Your task to perform on an android device: uninstall "Life360: Find Family & Friends" Image 0: 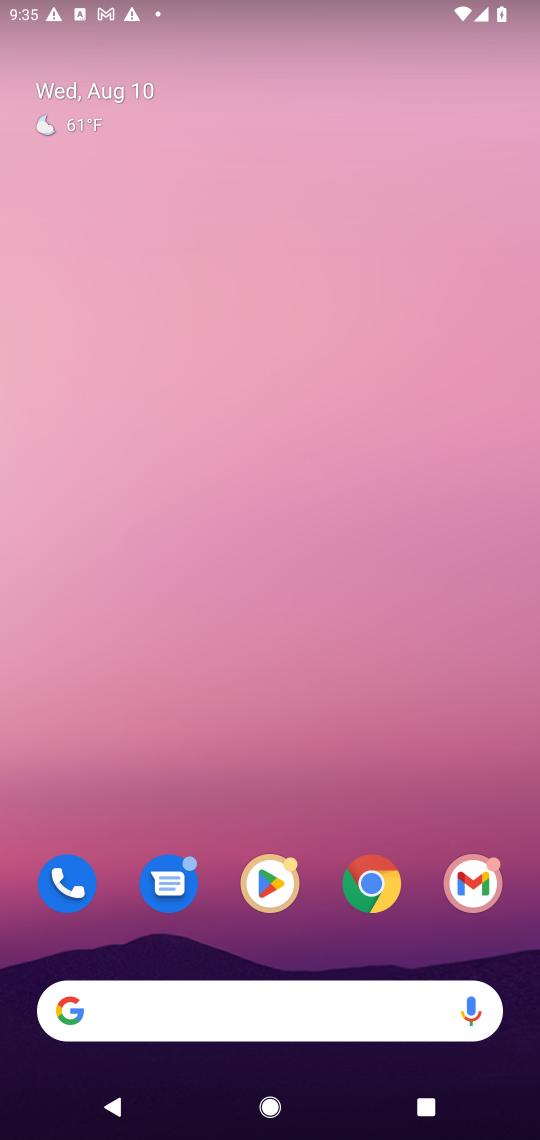
Step 0: click (261, 891)
Your task to perform on an android device: uninstall "Life360: Find Family & Friends" Image 1: 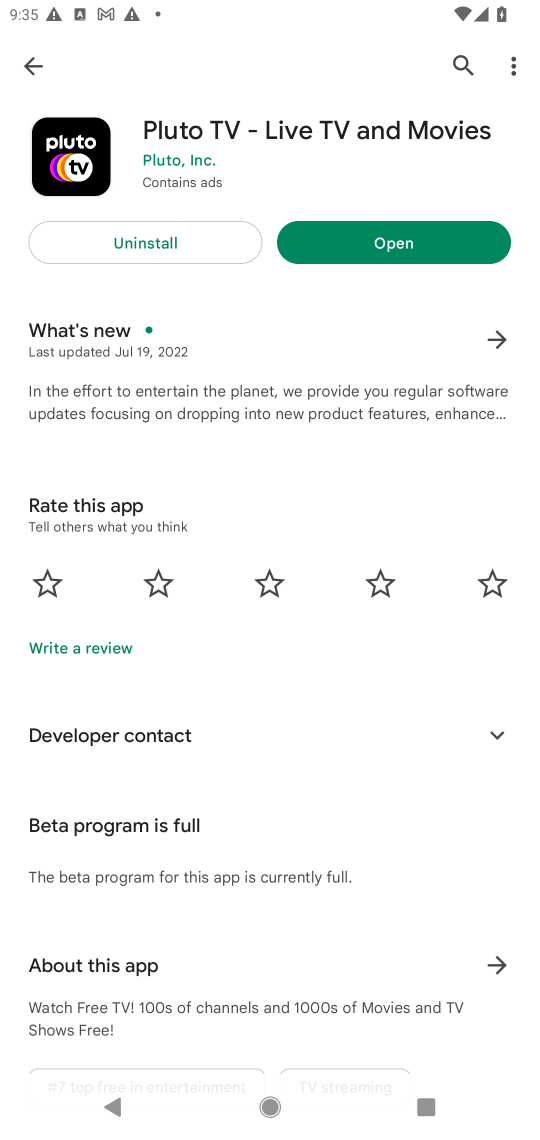
Step 1: click (453, 56)
Your task to perform on an android device: uninstall "Life360: Find Family & Friends" Image 2: 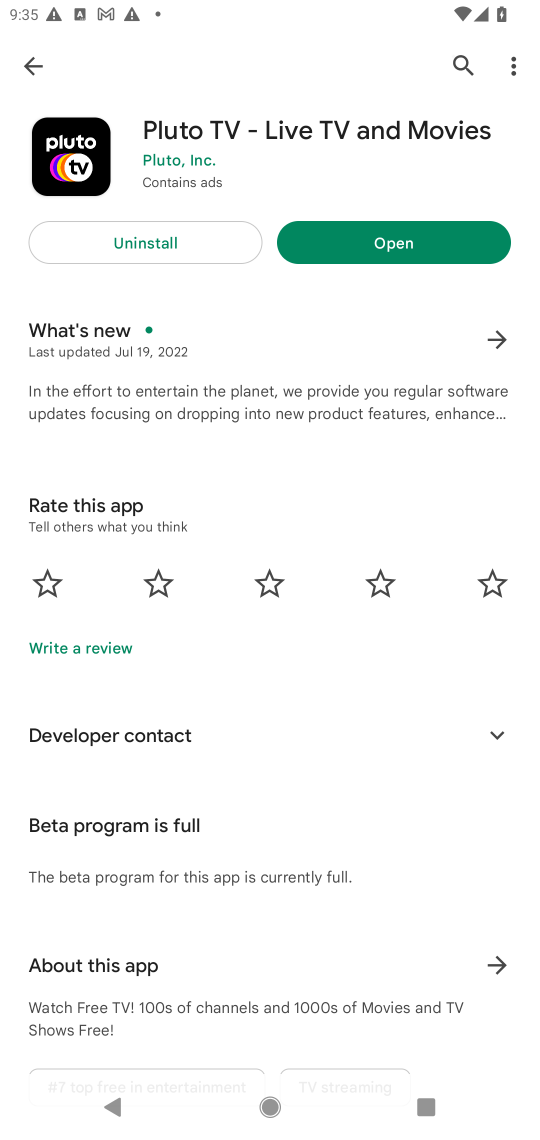
Step 2: click (452, 63)
Your task to perform on an android device: uninstall "Life360: Find Family & Friends" Image 3: 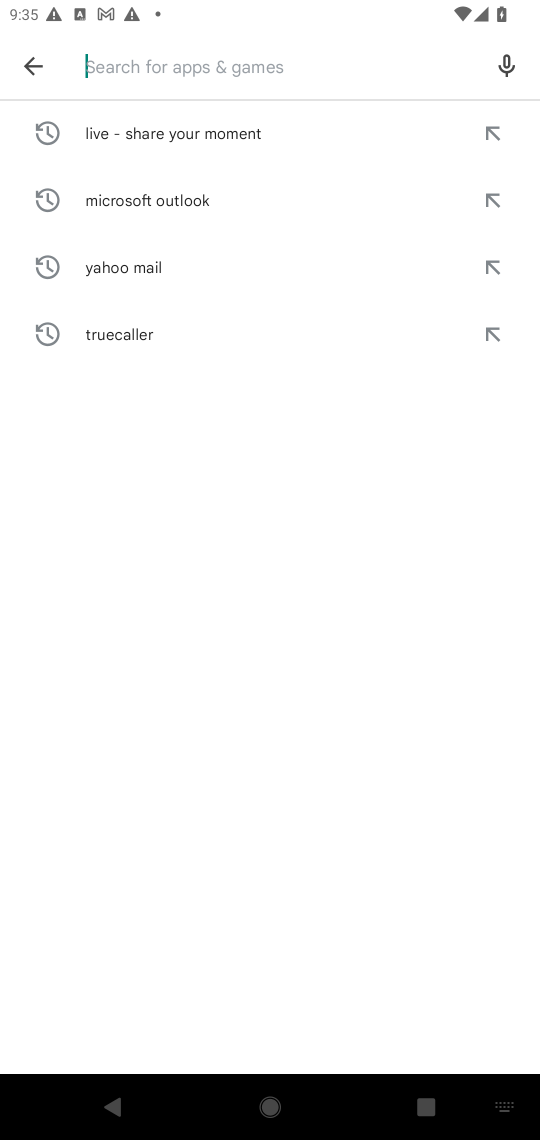
Step 3: type "Life360: Find Family & Friends"
Your task to perform on an android device: uninstall "Life360: Find Family & Friends" Image 4: 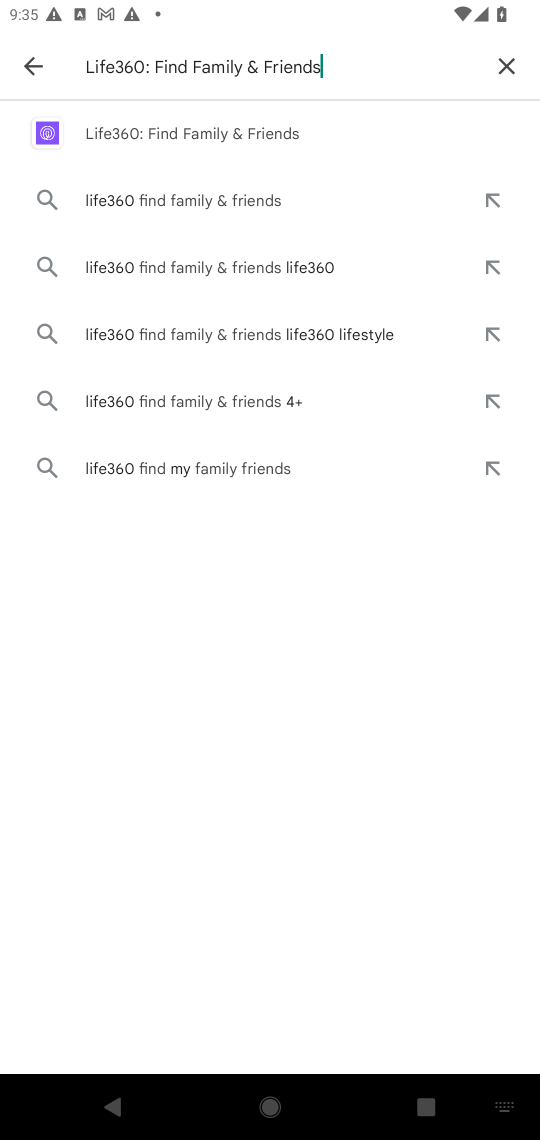
Step 4: click (291, 134)
Your task to perform on an android device: uninstall "Life360: Find Family & Friends" Image 5: 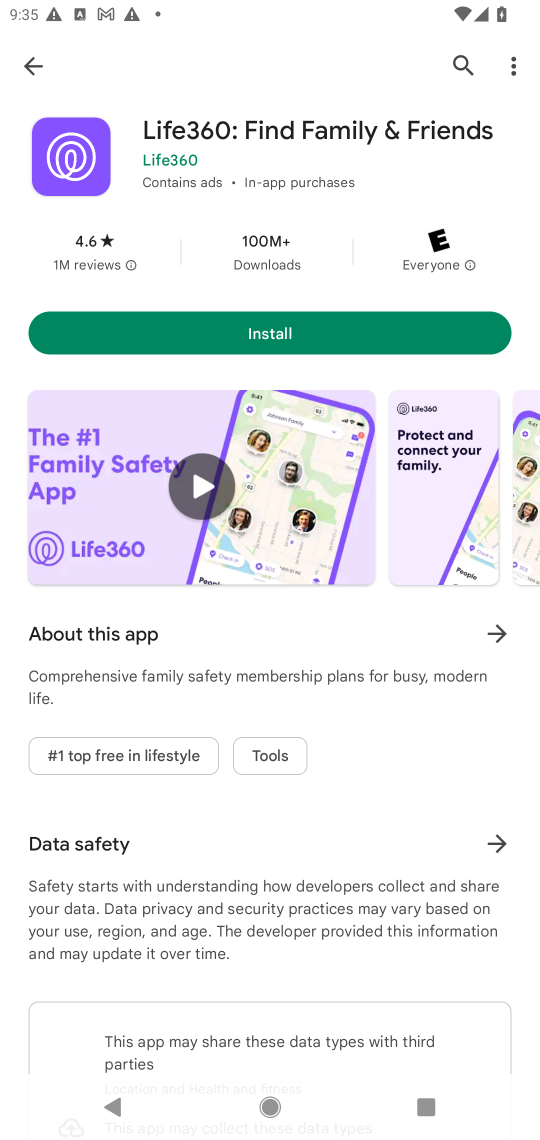
Step 5: task complete